Your task to perform on an android device: turn off notifications in google photos Image 0: 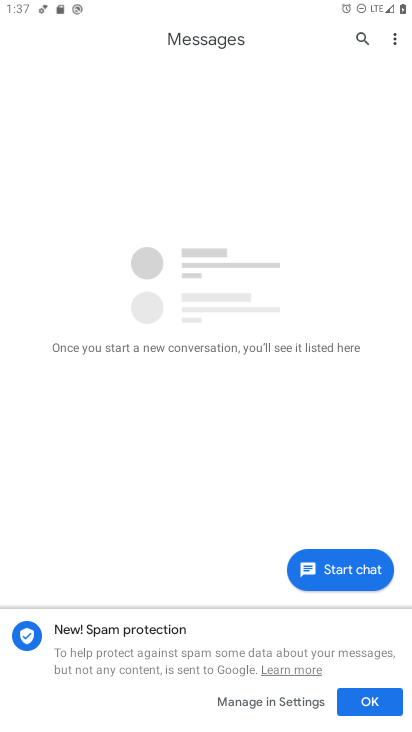
Step 0: press home button
Your task to perform on an android device: turn off notifications in google photos Image 1: 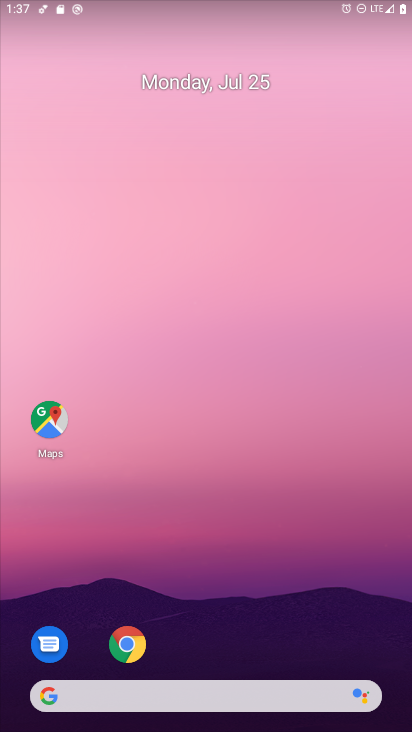
Step 1: drag from (208, 614) to (284, 97)
Your task to perform on an android device: turn off notifications in google photos Image 2: 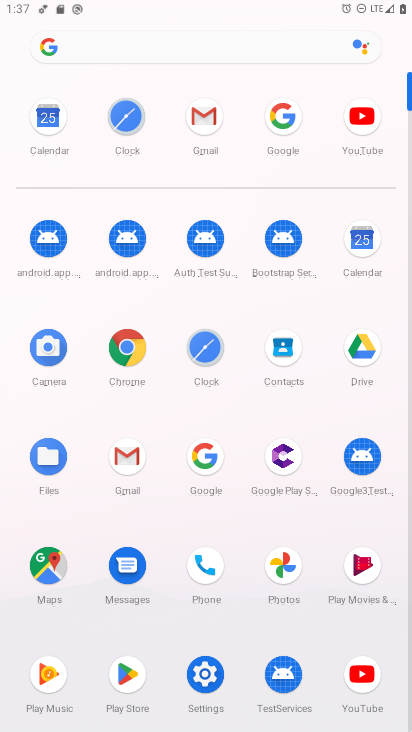
Step 2: click (281, 562)
Your task to perform on an android device: turn off notifications in google photos Image 3: 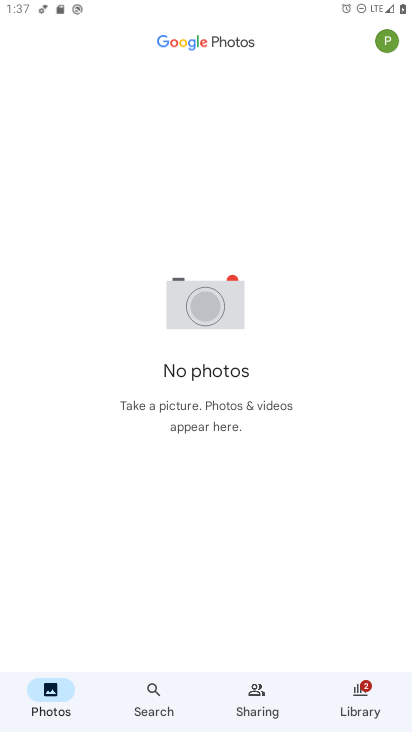
Step 3: click (381, 45)
Your task to perform on an android device: turn off notifications in google photos Image 4: 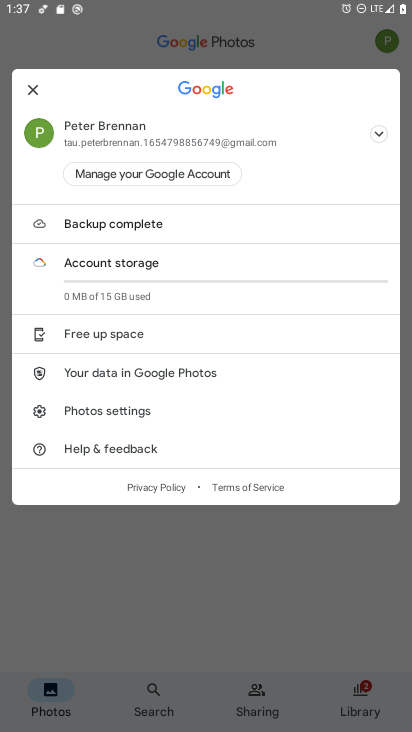
Step 4: click (98, 411)
Your task to perform on an android device: turn off notifications in google photos Image 5: 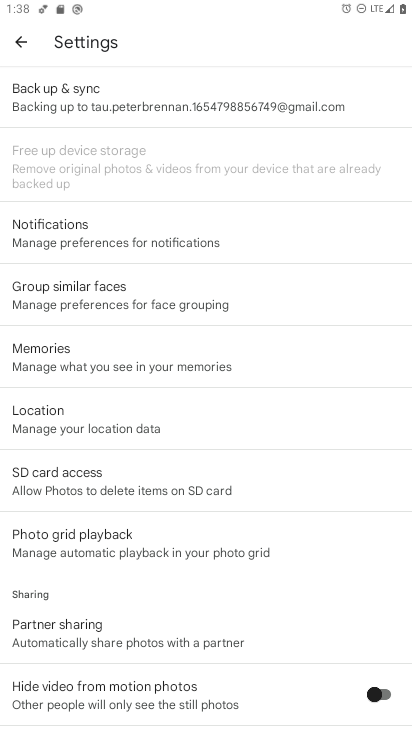
Step 5: click (90, 238)
Your task to perform on an android device: turn off notifications in google photos Image 6: 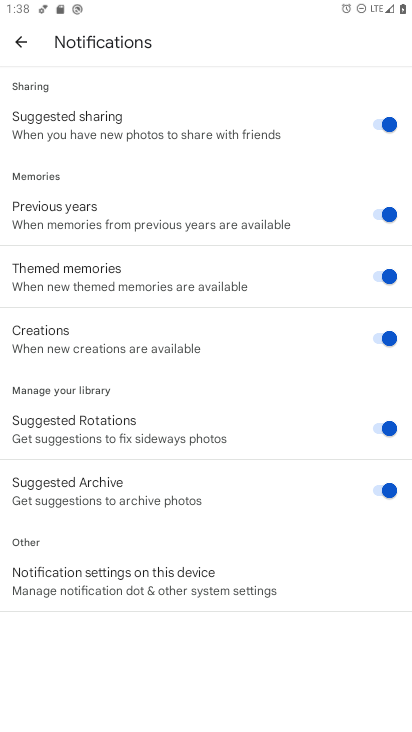
Step 6: click (151, 589)
Your task to perform on an android device: turn off notifications in google photos Image 7: 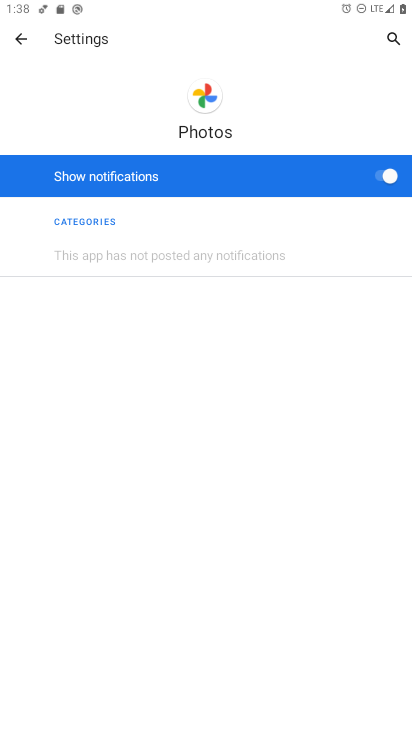
Step 7: click (376, 182)
Your task to perform on an android device: turn off notifications in google photos Image 8: 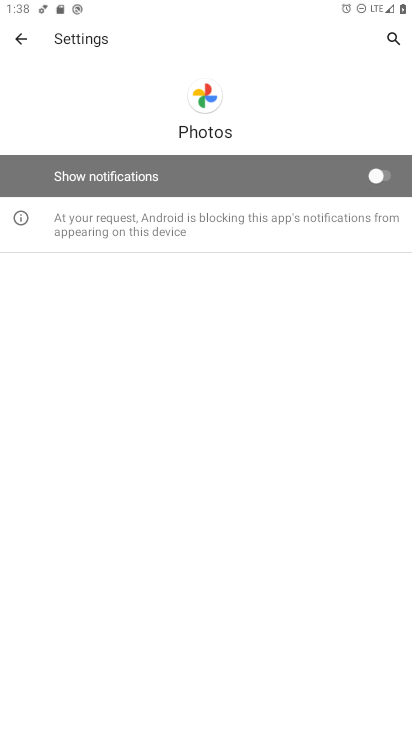
Step 8: task complete